Your task to perform on an android device: Go to eBay Image 0: 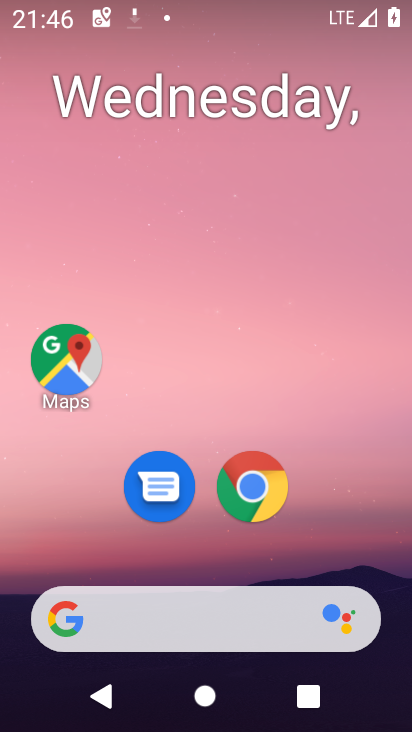
Step 0: click (255, 485)
Your task to perform on an android device: Go to eBay Image 1: 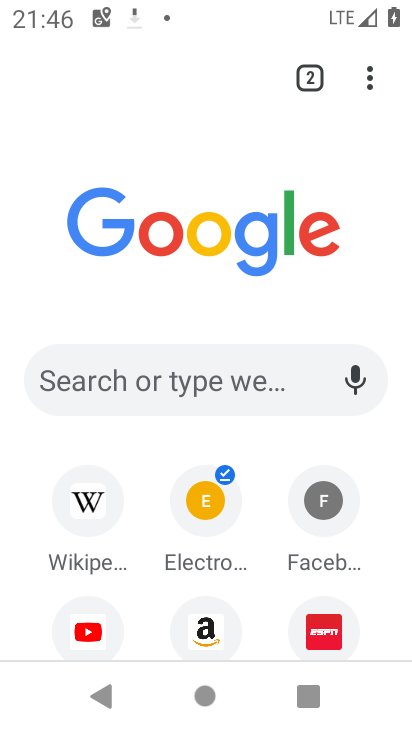
Step 1: click (138, 375)
Your task to perform on an android device: Go to eBay Image 2: 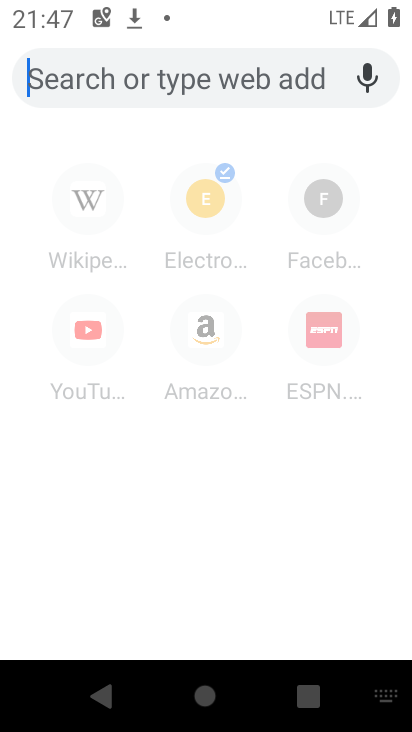
Step 2: type "ebay"
Your task to perform on an android device: Go to eBay Image 3: 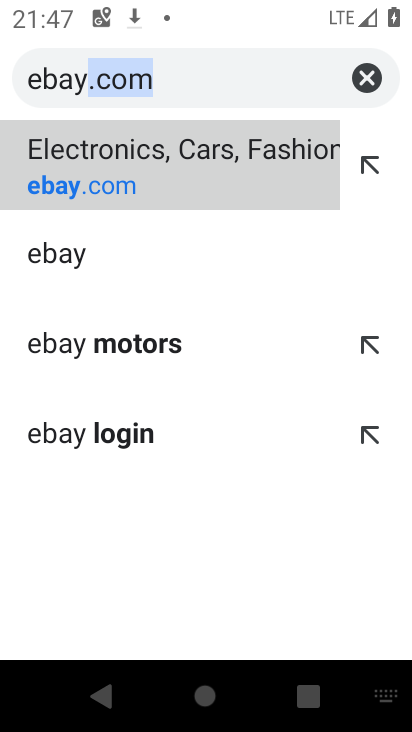
Step 3: click (147, 180)
Your task to perform on an android device: Go to eBay Image 4: 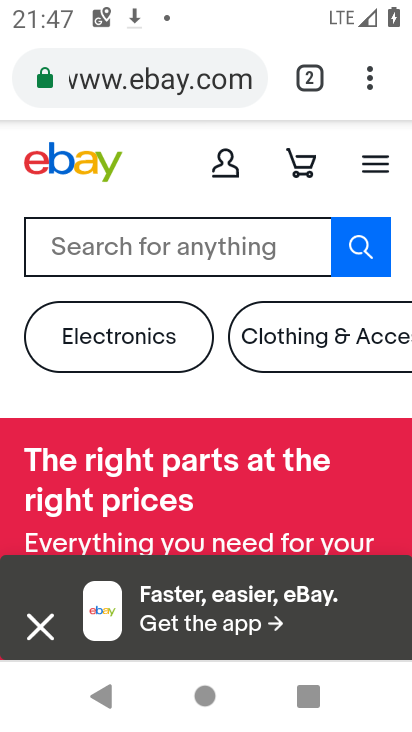
Step 4: task complete